Your task to perform on an android device: Is it going to rain today? Image 0: 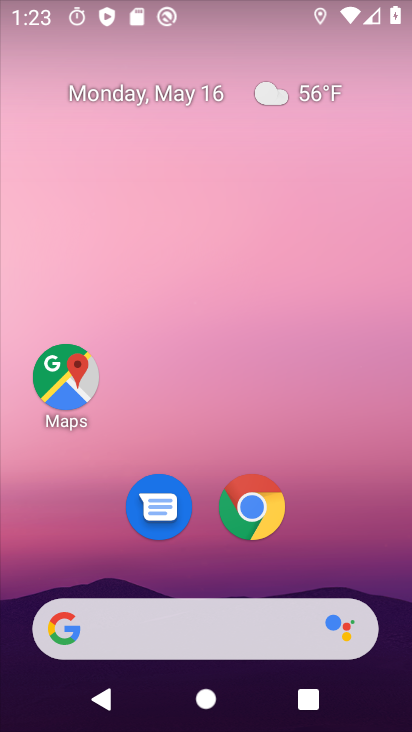
Step 0: drag from (203, 548) to (217, 154)
Your task to perform on an android device: Is it going to rain today? Image 1: 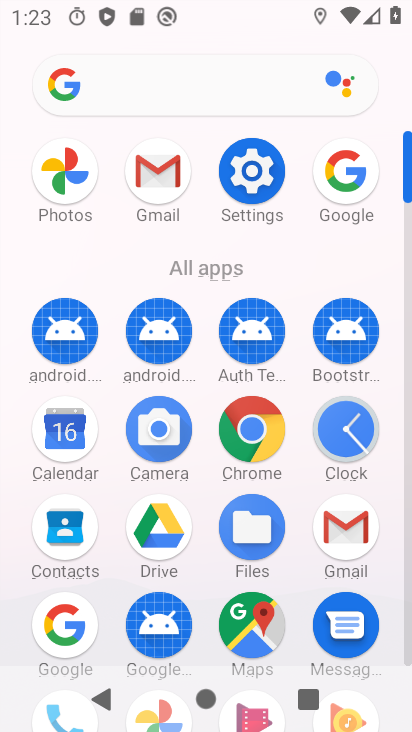
Step 1: click (346, 165)
Your task to perform on an android device: Is it going to rain today? Image 2: 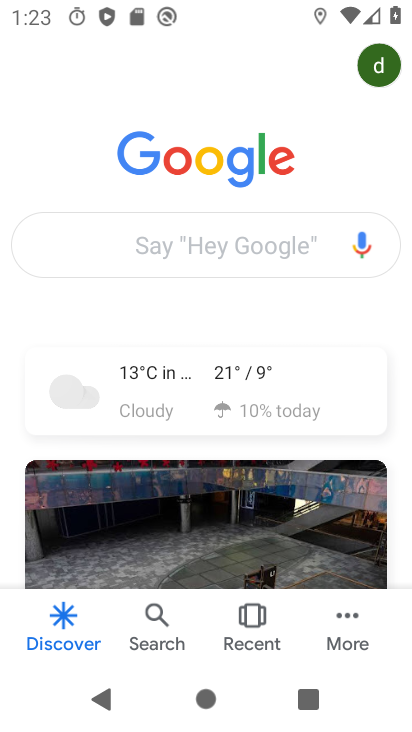
Step 2: click (202, 249)
Your task to perform on an android device: Is it going to rain today? Image 3: 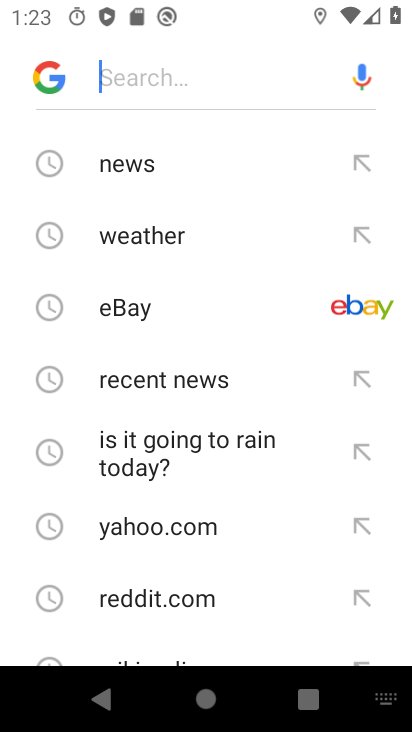
Step 3: type "is it going to rain today"
Your task to perform on an android device: Is it going to rain today? Image 4: 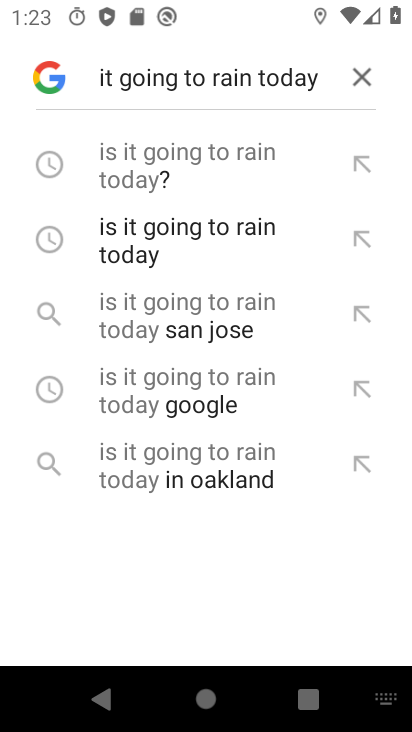
Step 4: click (200, 186)
Your task to perform on an android device: Is it going to rain today? Image 5: 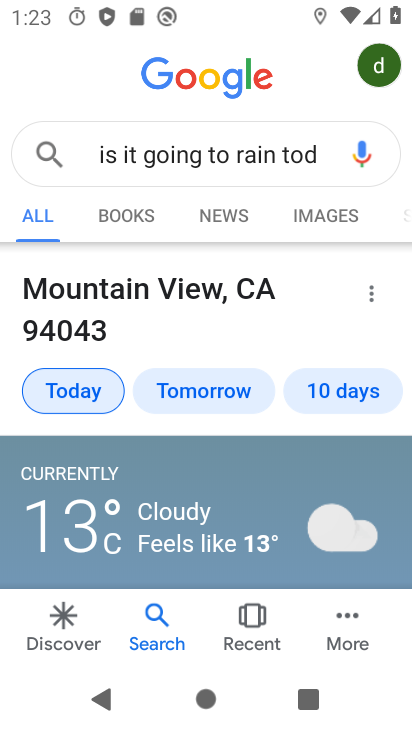
Step 5: task complete